Your task to perform on an android device: turn off picture-in-picture Image 0: 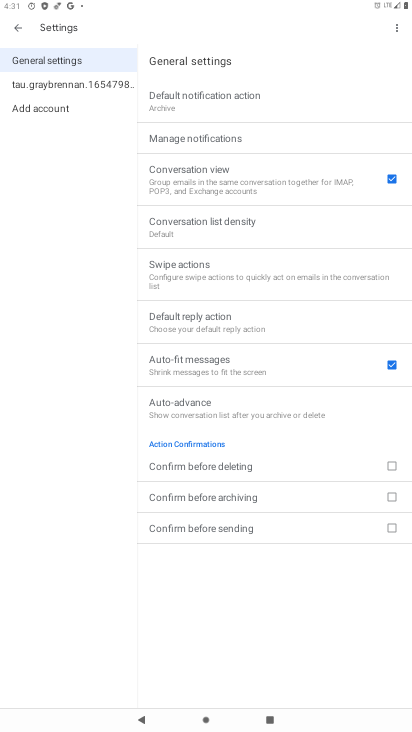
Step 0: press home button
Your task to perform on an android device: turn off picture-in-picture Image 1: 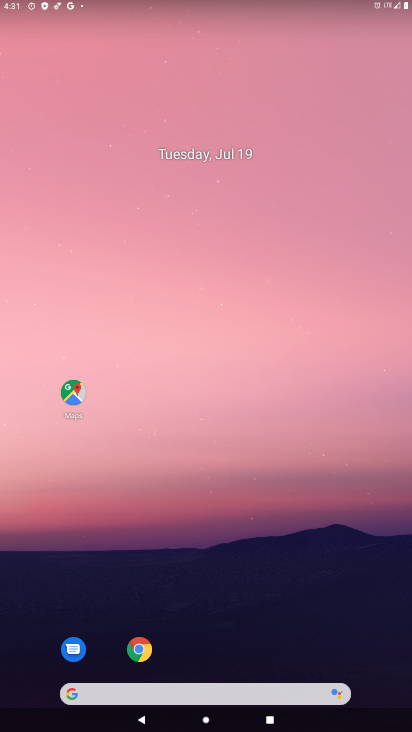
Step 1: drag from (237, 630) to (217, 128)
Your task to perform on an android device: turn off picture-in-picture Image 2: 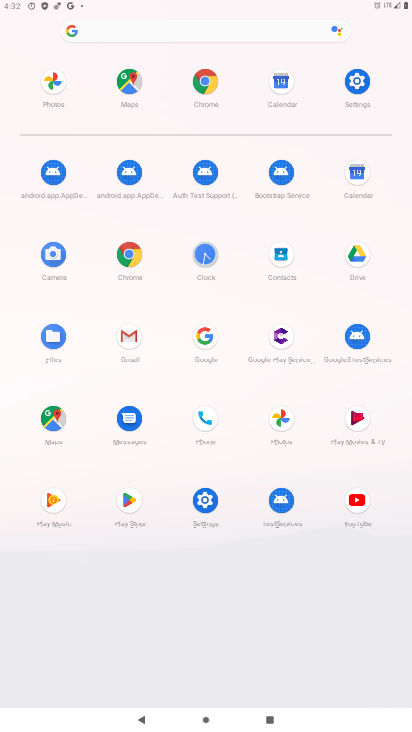
Step 2: click (132, 264)
Your task to perform on an android device: turn off picture-in-picture Image 3: 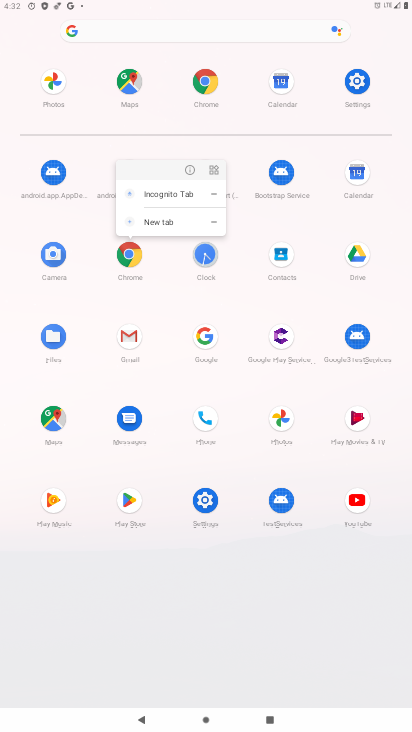
Step 3: click (183, 168)
Your task to perform on an android device: turn off picture-in-picture Image 4: 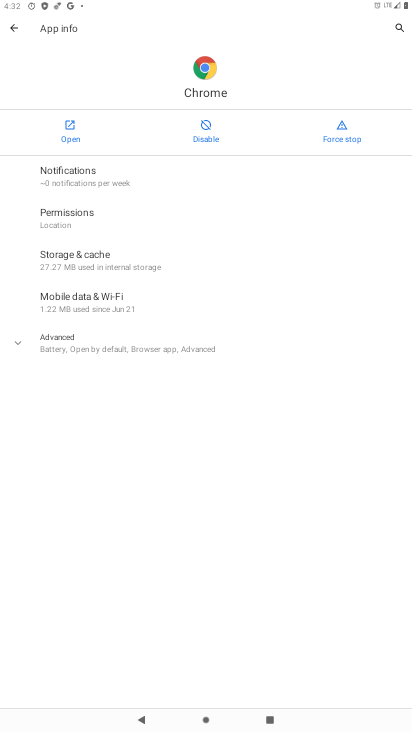
Step 4: click (134, 345)
Your task to perform on an android device: turn off picture-in-picture Image 5: 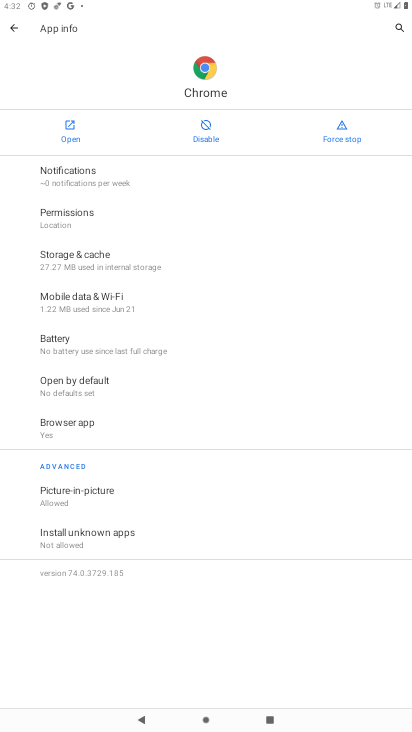
Step 5: click (122, 495)
Your task to perform on an android device: turn off picture-in-picture Image 6: 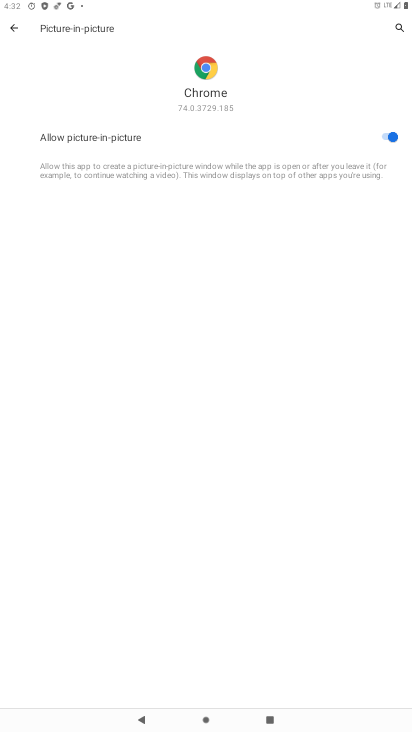
Step 6: click (384, 143)
Your task to perform on an android device: turn off picture-in-picture Image 7: 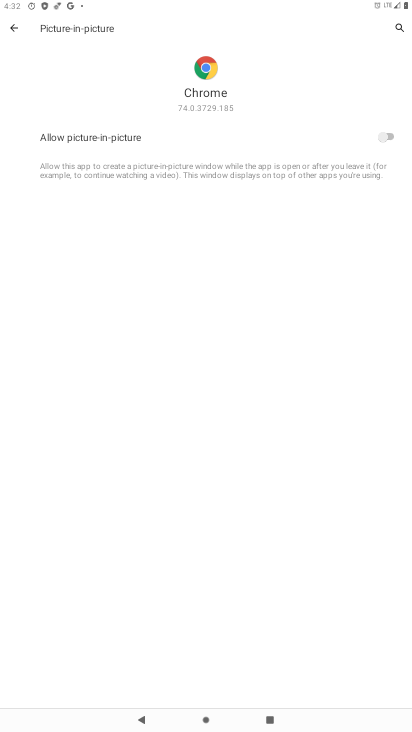
Step 7: task complete